Your task to perform on an android device: turn on bluetooth scan Image 0: 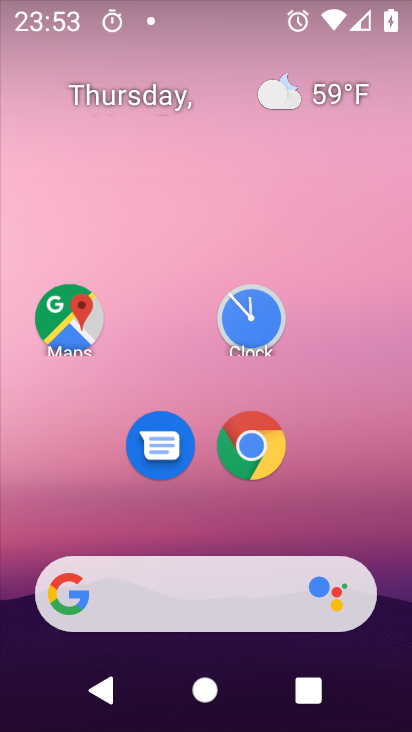
Step 0: click (252, 465)
Your task to perform on an android device: turn on bluetooth scan Image 1: 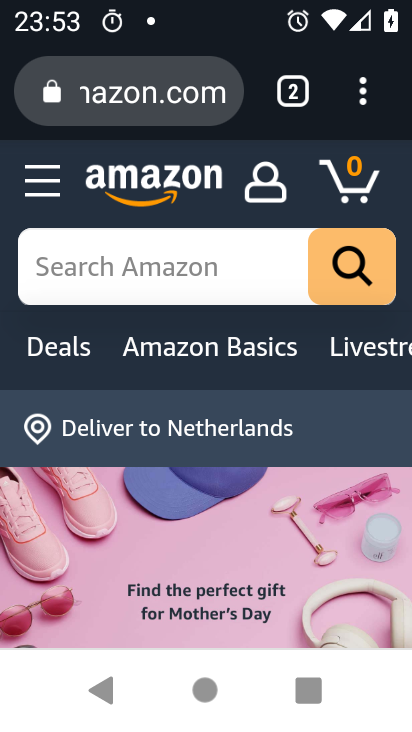
Step 1: click (249, 469)
Your task to perform on an android device: turn on bluetooth scan Image 2: 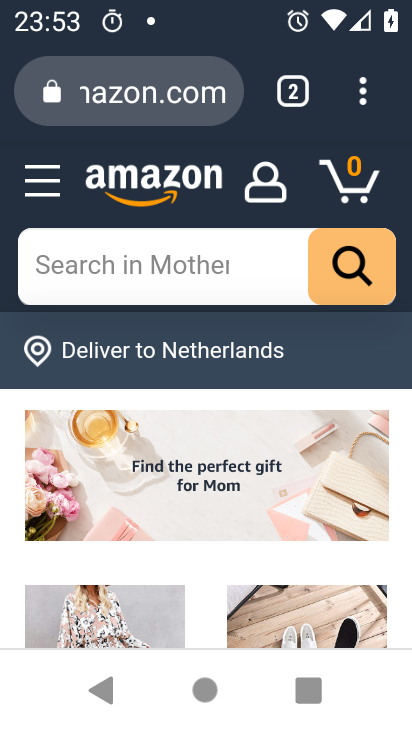
Step 2: press home button
Your task to perform on an android device: turn on bluetooth scan Image 3: 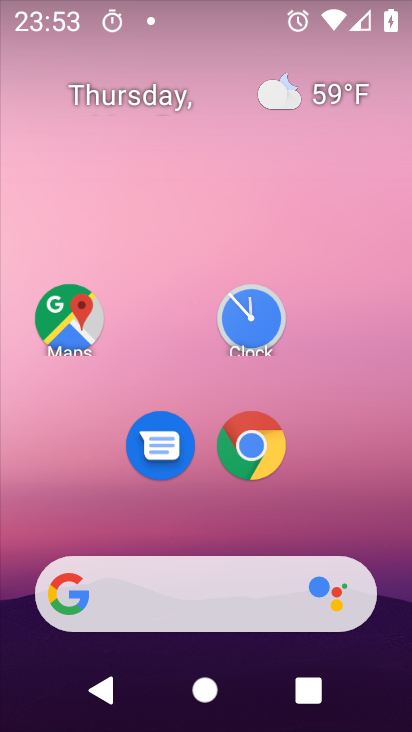
Step 3: drag from (167, 581) to (204, 188)
Your task to perform on an android device: turn on bluetooth scan Image 4: 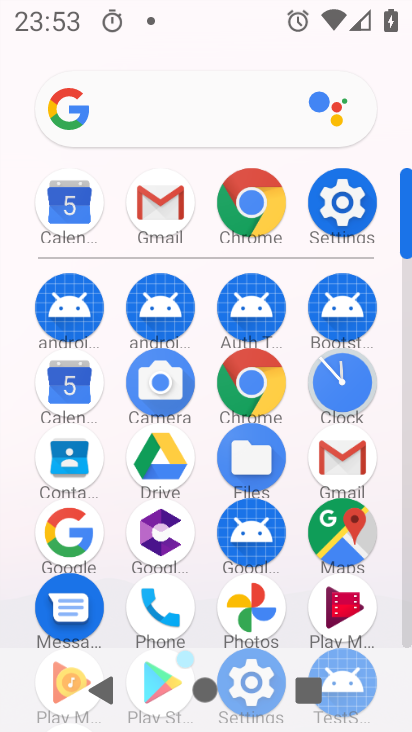
Step 4: click (338, 203)
Your task to perform on an android device: turn on bluetooth scan Image 5: 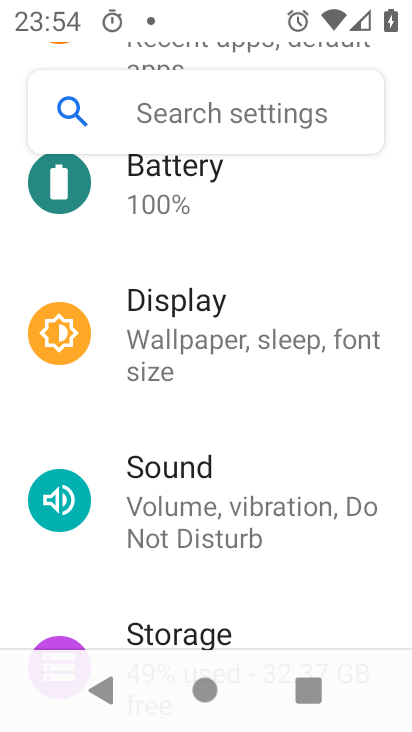
Step 5: drag from (203, 225) to (267, 23)
Your task to perform on an android device: turn on bluetooth scan Image 6: 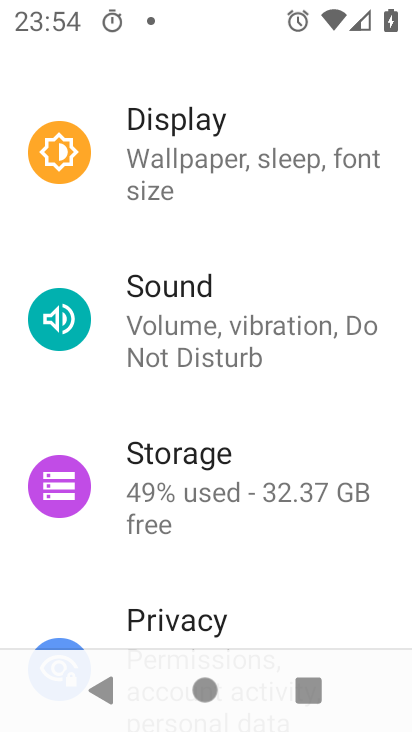
Step 6: drag from (222, 339) to (240, 151)
Your task to perform on an android device: turn on bluetooth scan Image 7: 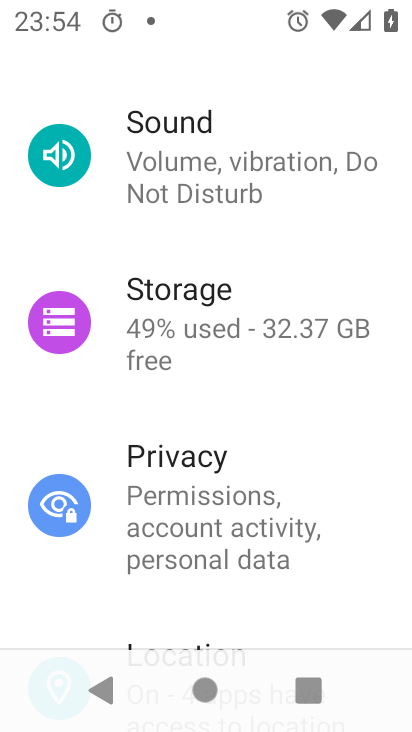
Step 7: drag from (223, 181) to (209, 509)
Your task to perform on an android device: turn on bluetooth scan Image 8: 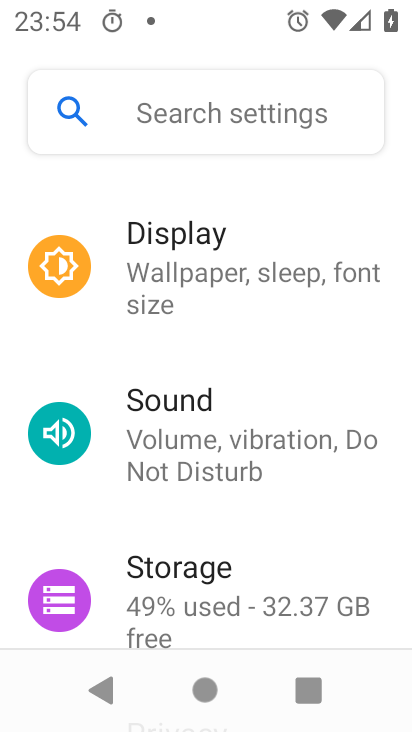
Step 8: drag from (196, 340) to (218, 686)
Your task to perform on an android device: turn on bluetooth scan Image 9: 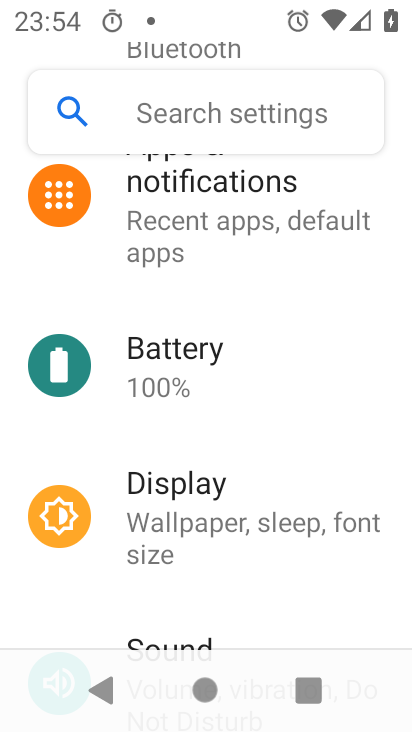
Step 9: click (218, 686)
Your task to perform on an android device: turn on bluetooth scan Image 10: 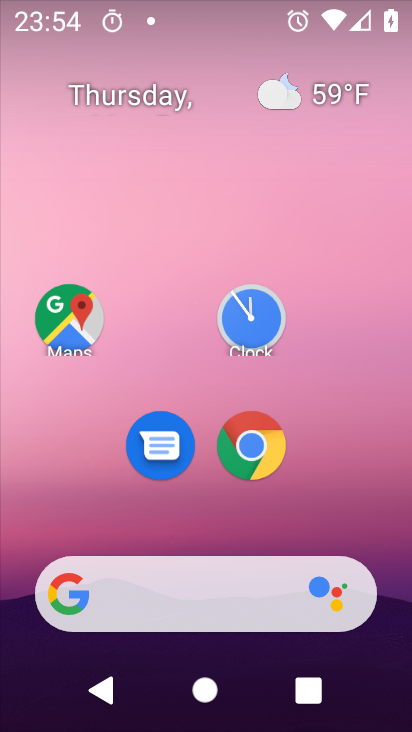
Step 10: drag from (228, 567) to (356, 95)
Your task to perform on an android device: turn on bluetooth scan Image 11: 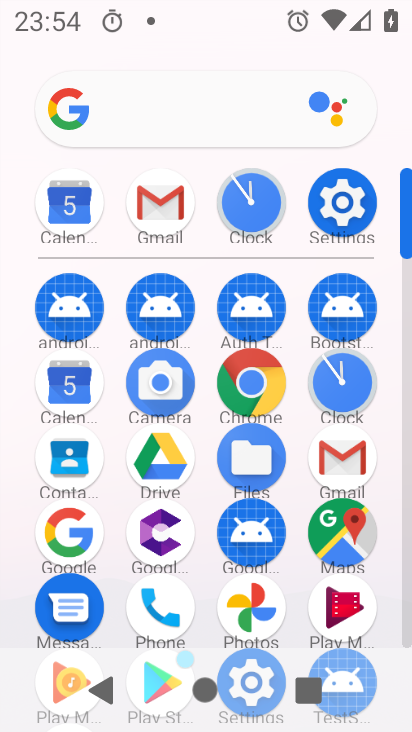
Step 11: click (314, 204)
Your task to perform on an android device: turn on bluetooth scan Image 12: 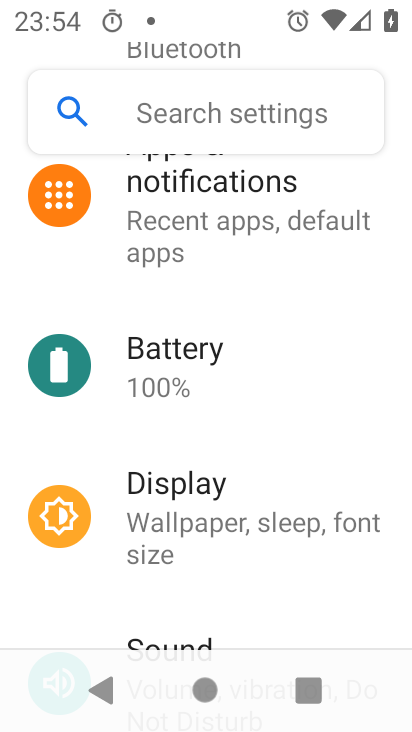
Step 12: drag from (207, 443) to (171, 22)
Your task to perform on an android device: turn on bluetooth scan Image 13: 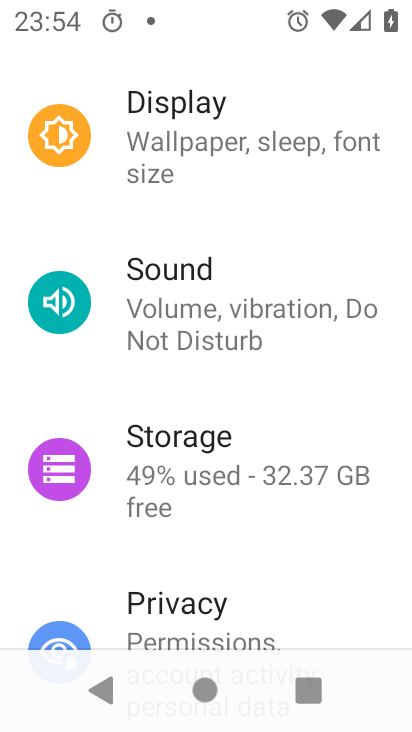
Step 13: drag from (224, 544) to (282, 6)
Your task to perform on an android device: turn on bluetooth scan Image 14: 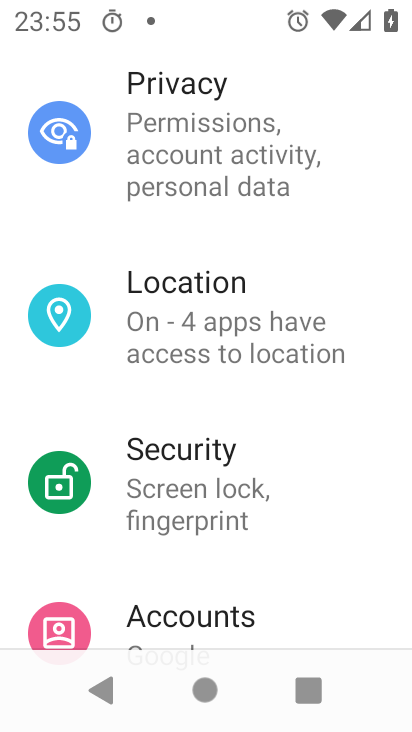
Step 14: click (214, 341)
Your task to perform on an android device: turn on bluetooth scan Image 15: 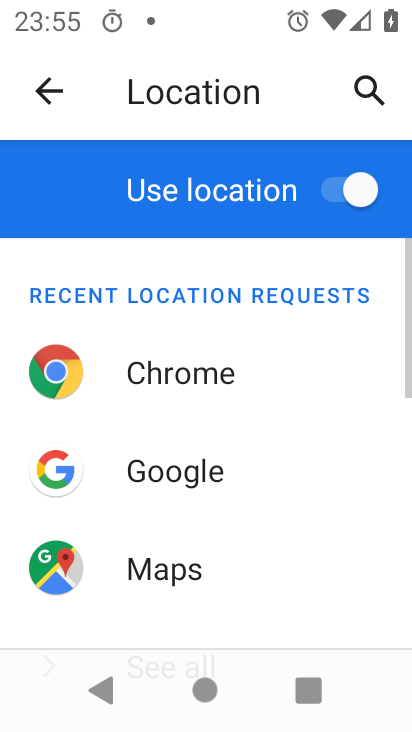
Step 15: drag from (267, 572) to (241, 18)
Your task to perform on an android device: turn on bluetooth scan Image 16: 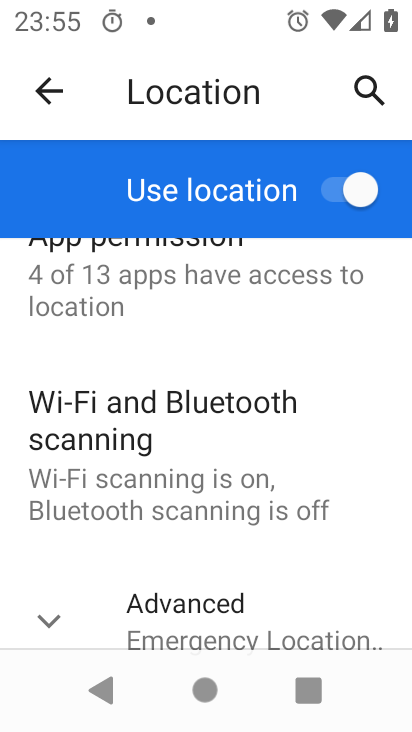
Step 16: click (188, 446)
Your task to perform on an android device: turn on bluetooth scan Image 17: 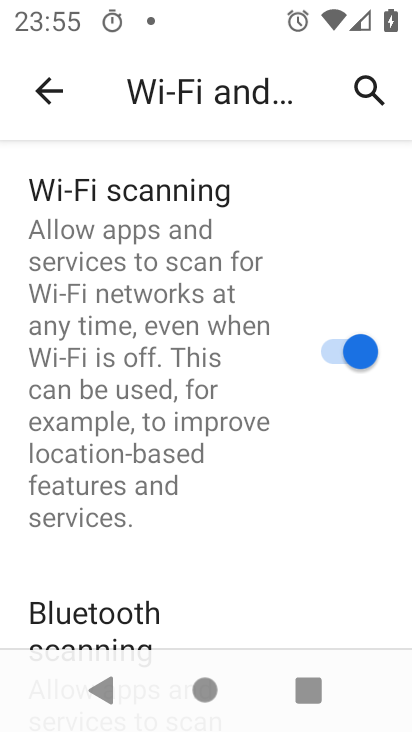
Step 17: drag from (286, 531) to (326, 72)
Your task to perform on an android device: turn on bluetooth scan Image 18: 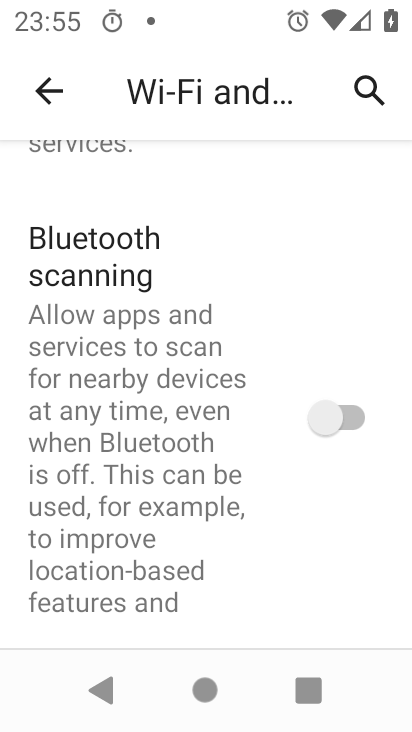
Step 18: click (336, 427)
Your task to perform on an android device: turn on bluetooth scan Image 19: 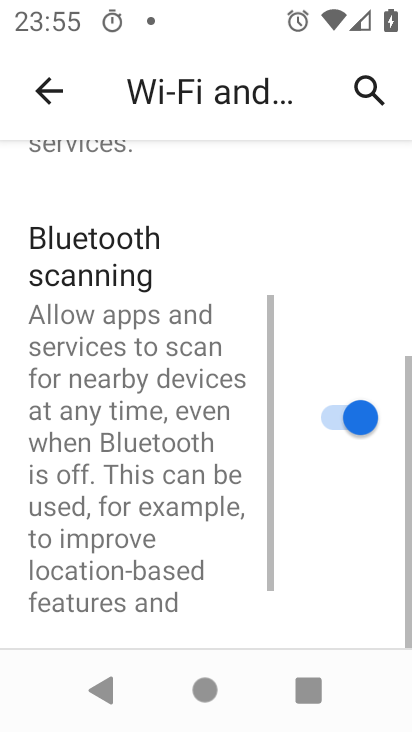
Step 19: task complete